Your task to perform on an android device: Open Google Image 0: 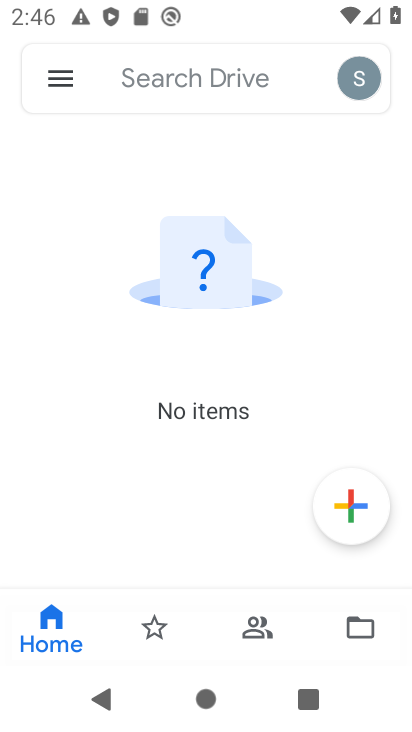
Step 0: press home button
Your task to perform on an android device: Open Google Image 1: 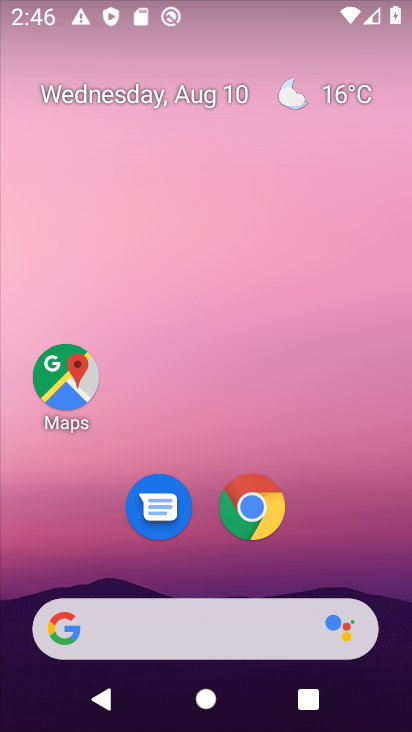
Step 1: drag from (331, 558) to (365, 138)
Your task to perform on an android device: Open Google Image 2: 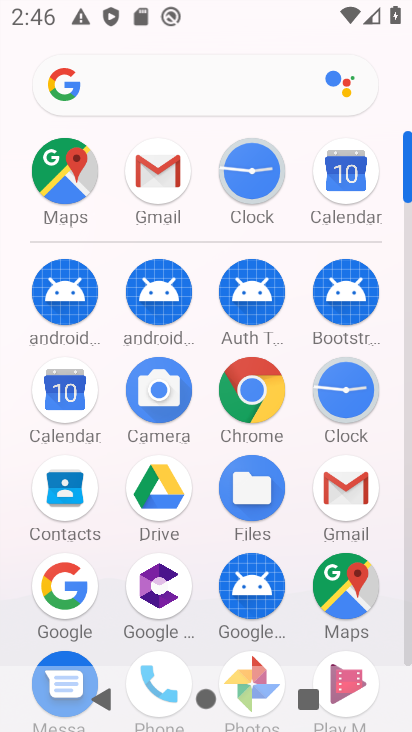
Step 2: click (79, 588)
Your task to perform on an android device: Open Google Image 3: 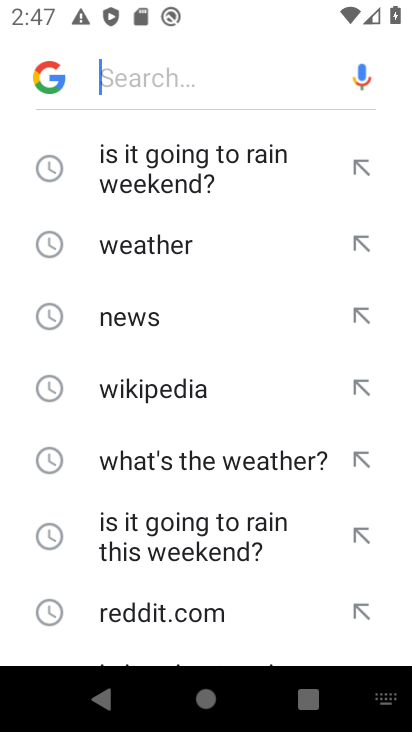
Step 3: task complete